Your task to perform on an android device: turn on location history Image 0: 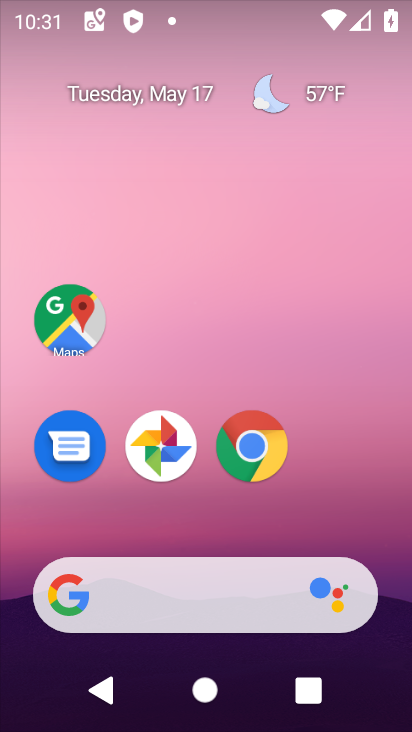
Step 0: drag from (166, 595) to (182, 0)
Your task to perform on an android device: turn on location history Image 1: 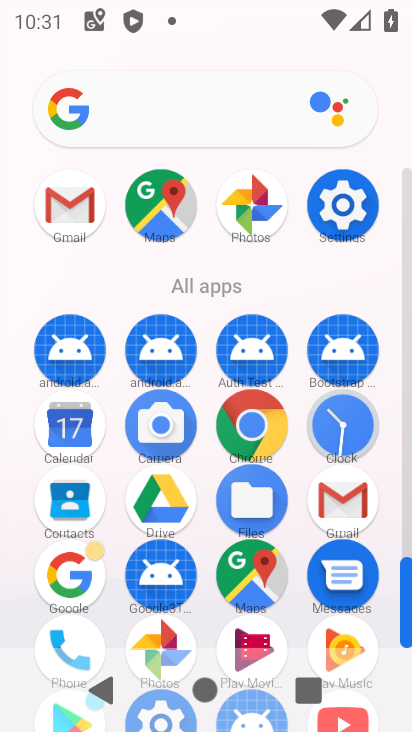
Step 1: click (343, 203)
Your task to perform on an android device: turn on location history Image 2: 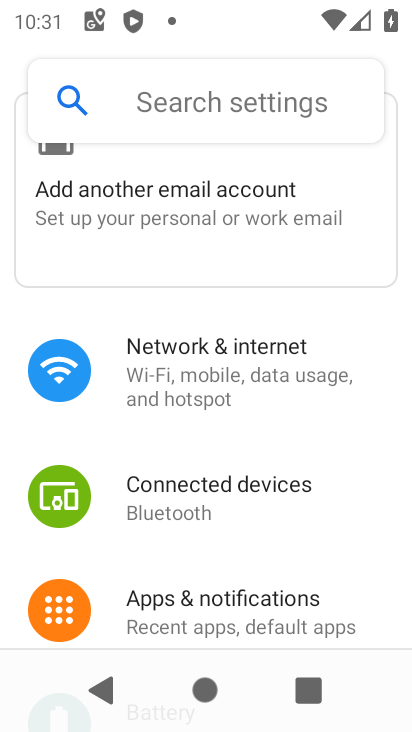
Step 2: drag from (227, 543) to (274, 45)
Your task to perform on an android device: turn on location history Image 3: 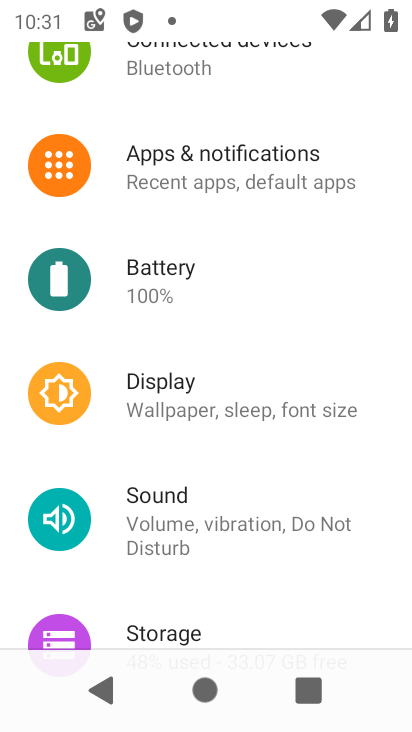
Step 3: drag from (233, 534) to (273, 62)
Your task to perform on an android device: turn on location history Image 4: 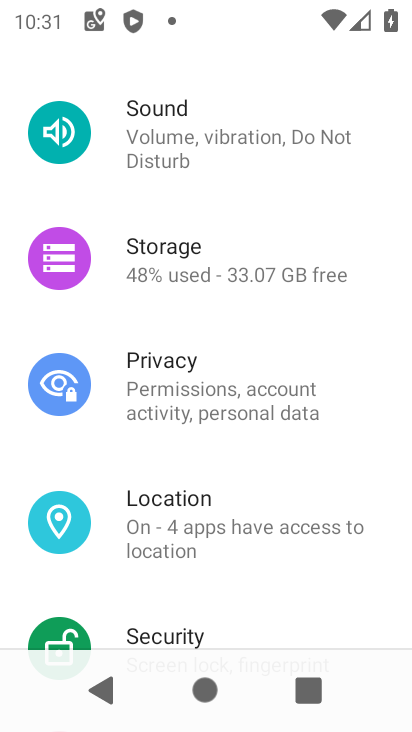
Step 4: click (236, 535)
Your task to perform on an android device: turn on location history Image 5: 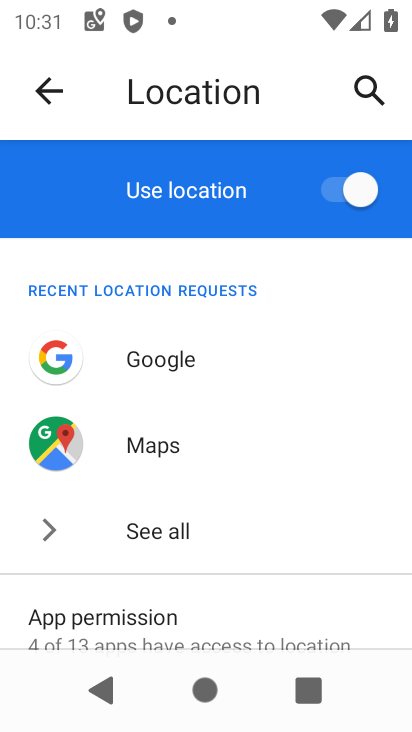
Step 5: drag from (145, 546) to (145, 65)
Your task to perform on an android device: turn on location history Image 6: 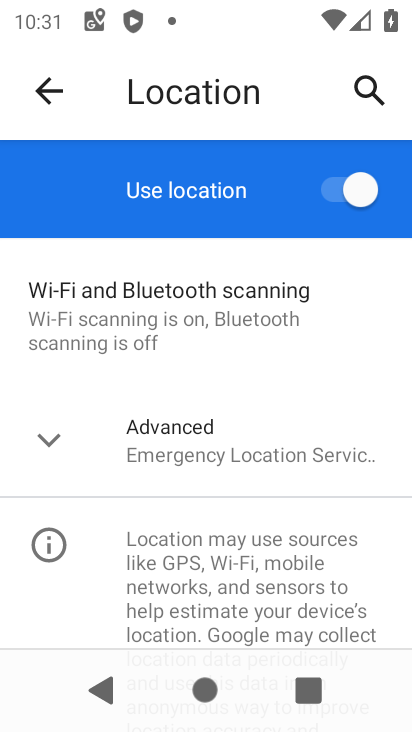
Step 6: click (225, 454)
Your task to perform on an android device: turn on location history Image 7: 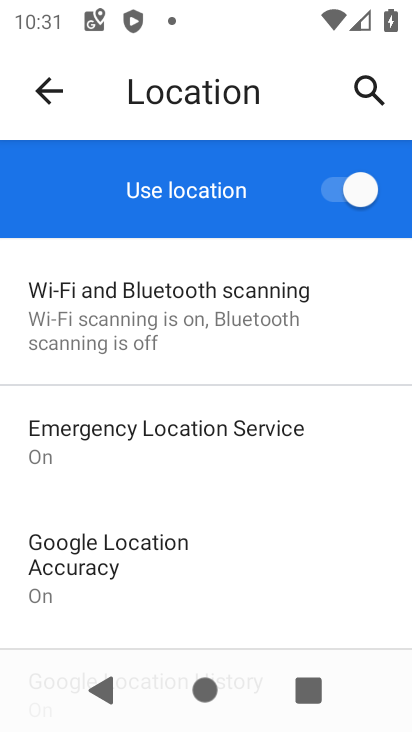
Step 7: drag from (192, 537) to (205, 168)
Your task to perform on an android device: turn on location history Image 8: 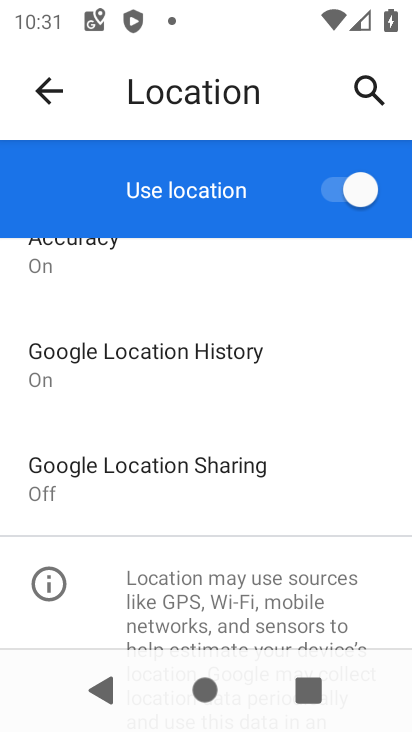
Step 8: click (161, 363)
Your task to perform on an android device: turn on location history Image 9: 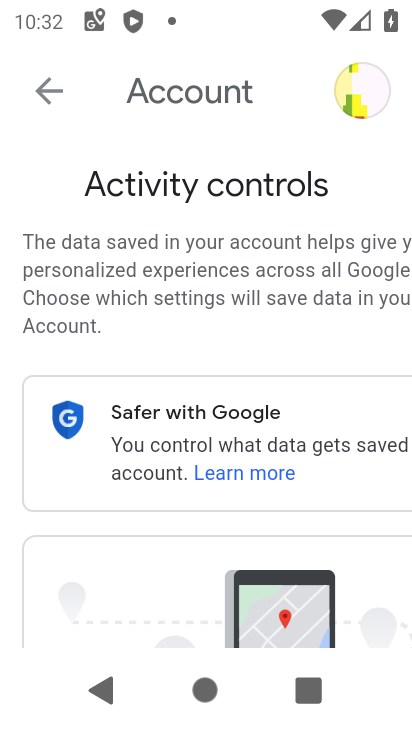
Step 9: task complete